Your task to perform on an android device: set an alarm Image 0: 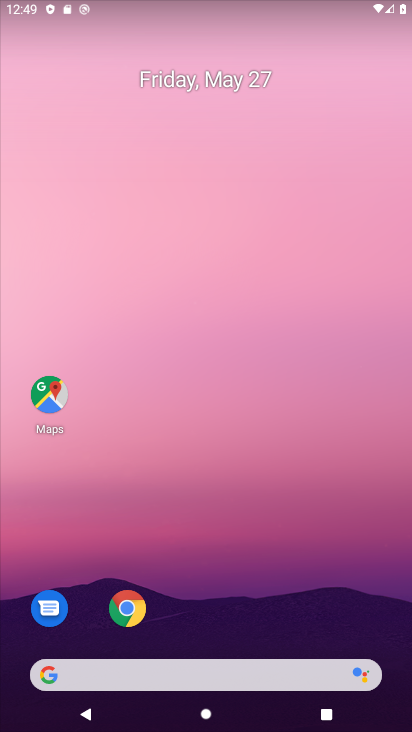
Step 0: drag from (175, 652) to (287, 236)
Your task to perform on an android device: set an alarm Image 1: 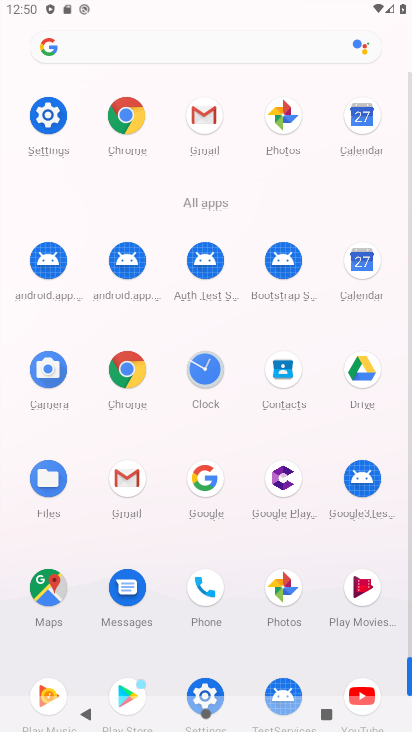
Step 1: click (213, 361)
Your task to perform on an android device: set an alarm Image 2: 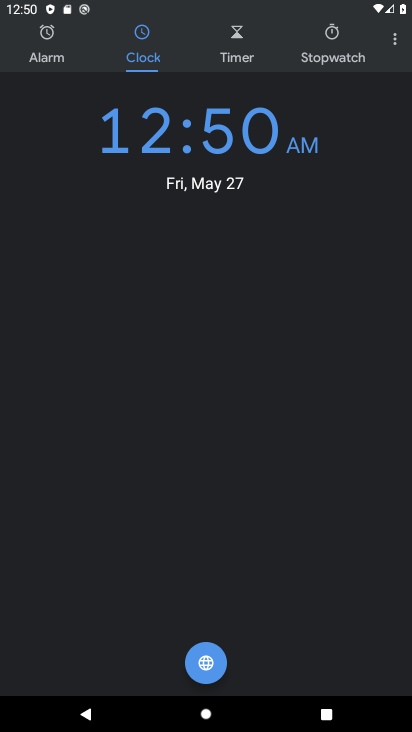
Step 2: click (55, 49)
Your task to perform on an android device: set an alarm Image 3: 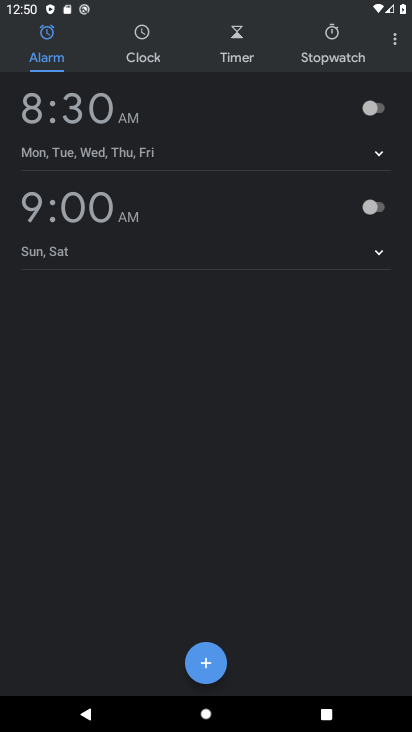
Step 3: click (206, 660)
Your task to perform on an android device: set an alarm Image 4: 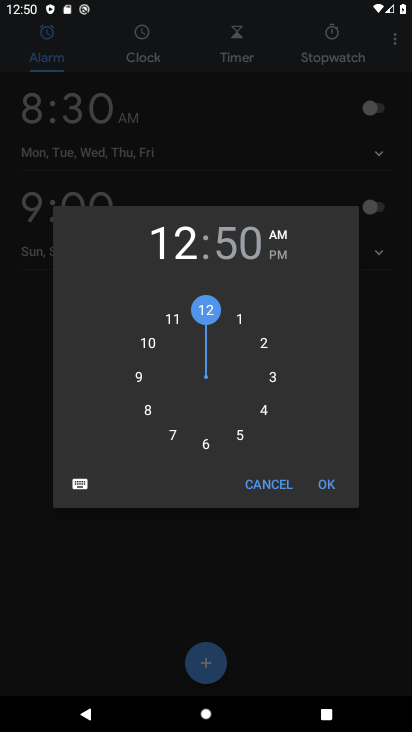
Step 4: click (278, 383)
Your task to perform on an android device: set an alarm Image 5: 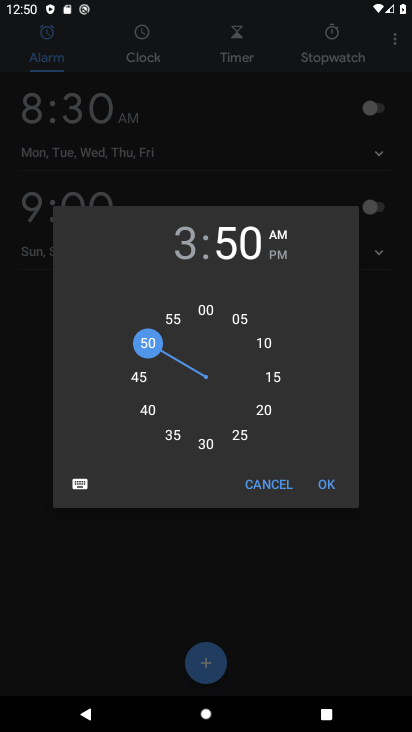
Step 5: click (216, 323)
Your task to perform on an android device: set an alarm Image 6: 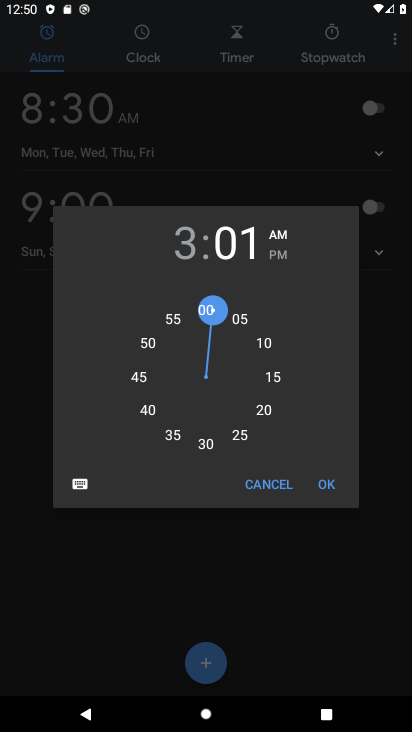
Step 6: click (207, 308)
Your task to perform on an android device: set an alarm Image 7: 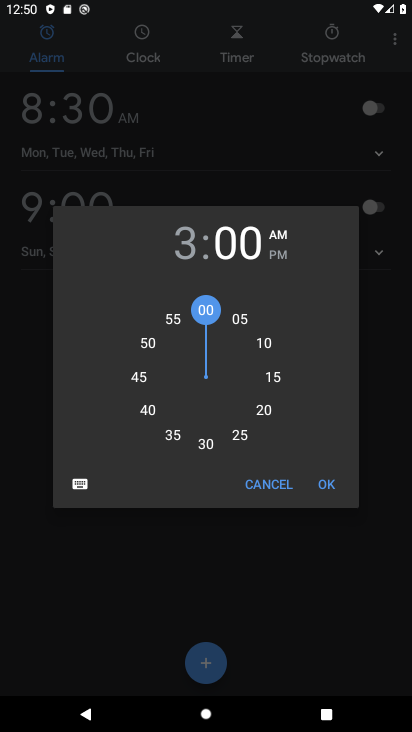
Step 7: click (339, 484)
Your task to perform on an android device: set an alarm Image 8: 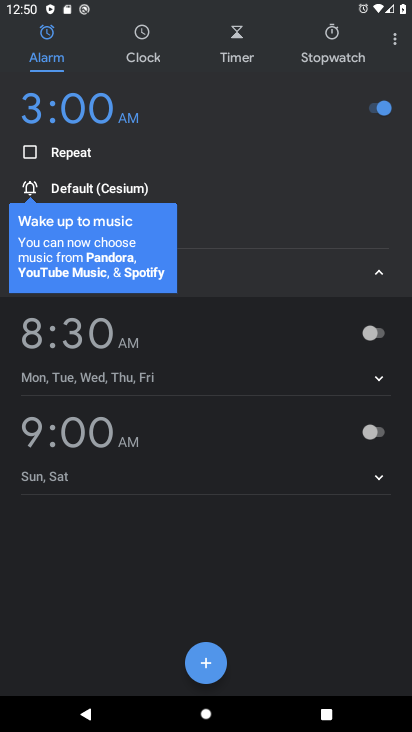
Step 8: task complete